Your task to perform on an android device: turn off translation in the chrome app Image 0: 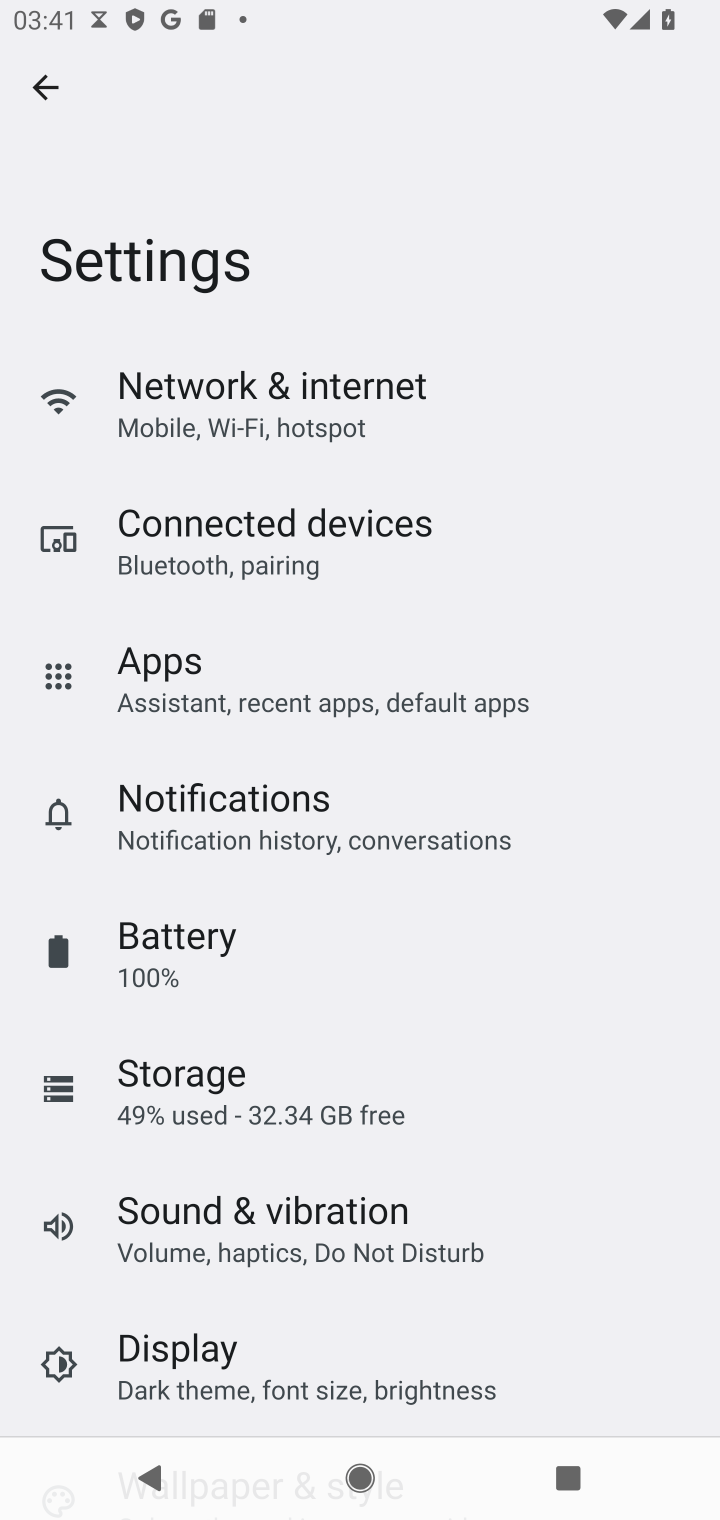
Step 0: press home button
Your task to perform on an android device: turn off translation in the chrome app Image 1: 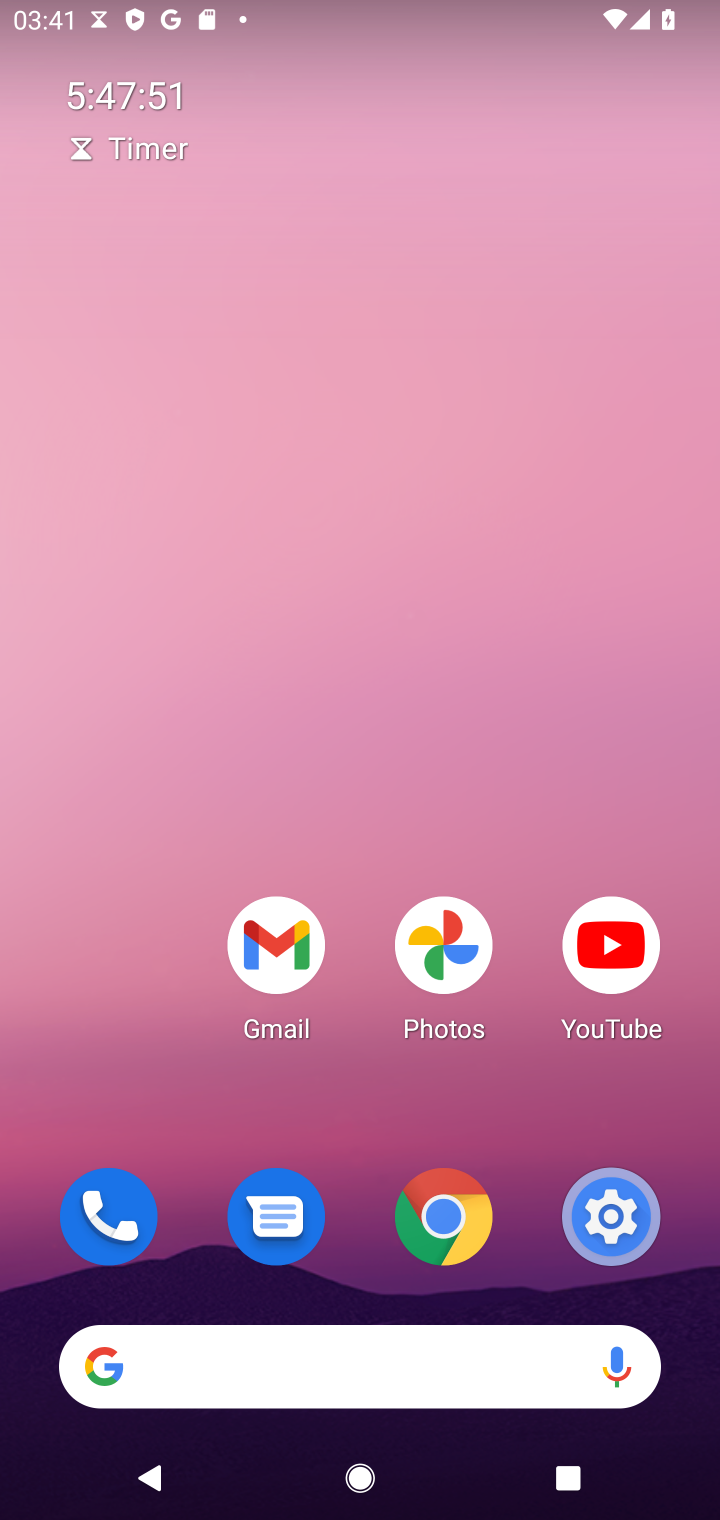
Step 1: click (435, 1200)
Your task to perform on an android device: turn off translation in the chrome app Image 2: 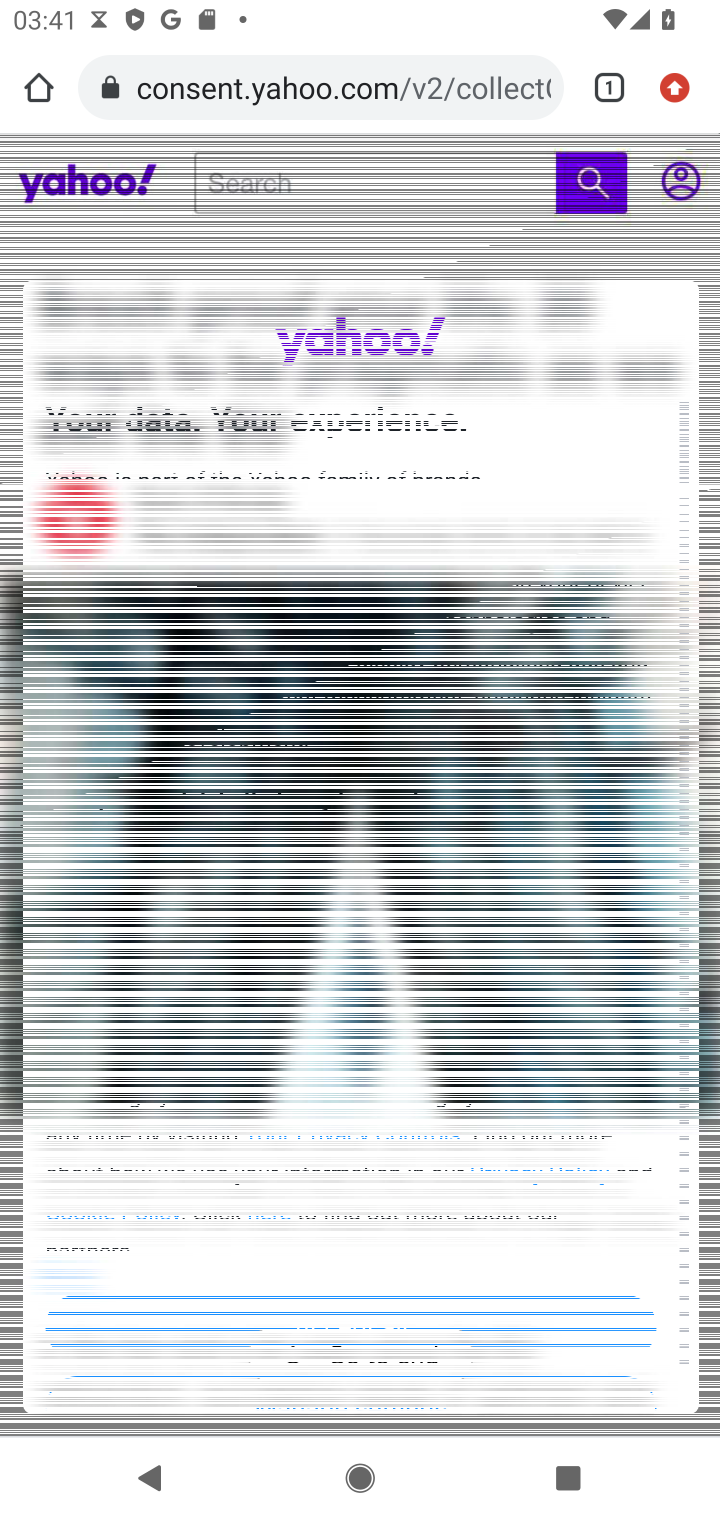
Step 2: click (674, 72)
Your task to perform on an android device: turn off translation in the chrome app Image 3: 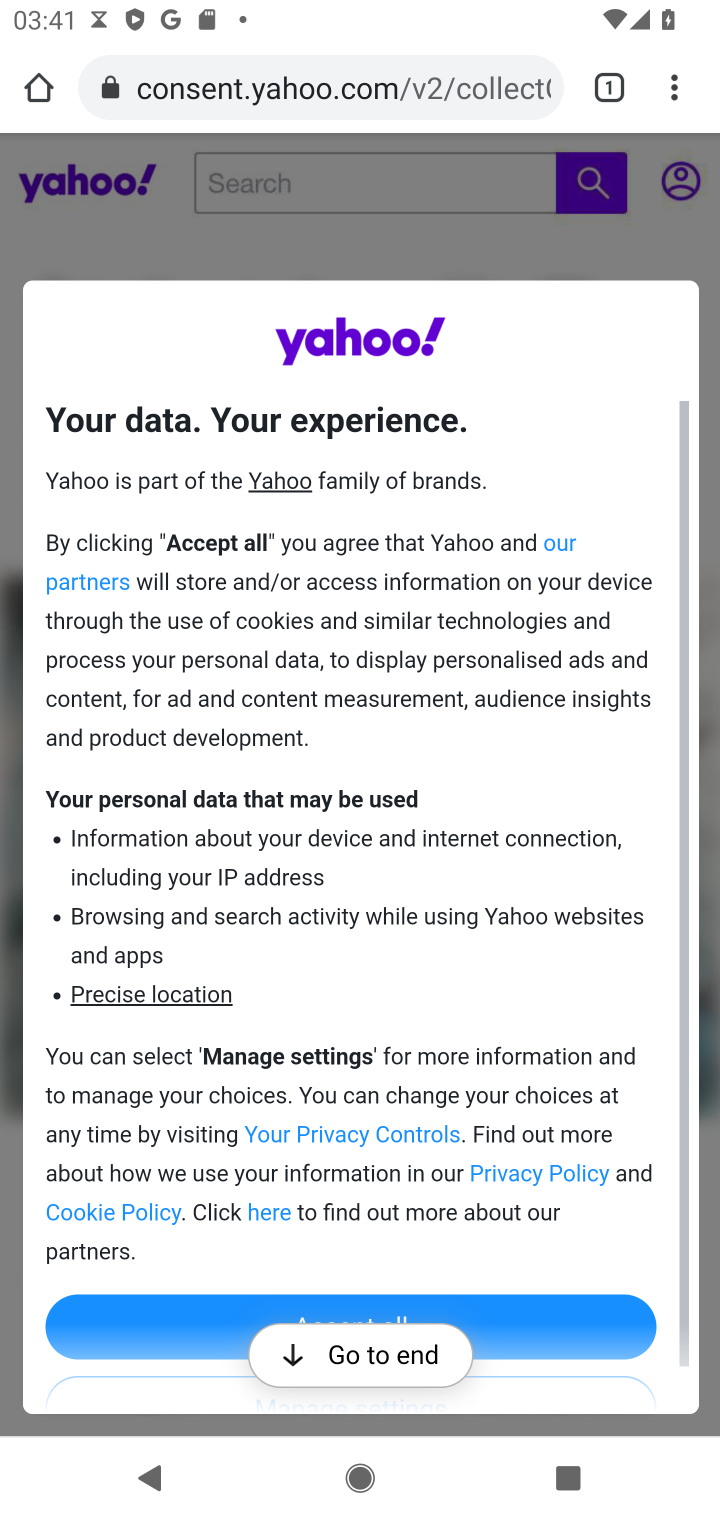
Step 3: click (674, 81)
Your task to perform on an android device: turn off translation in the chrome app Image 4: 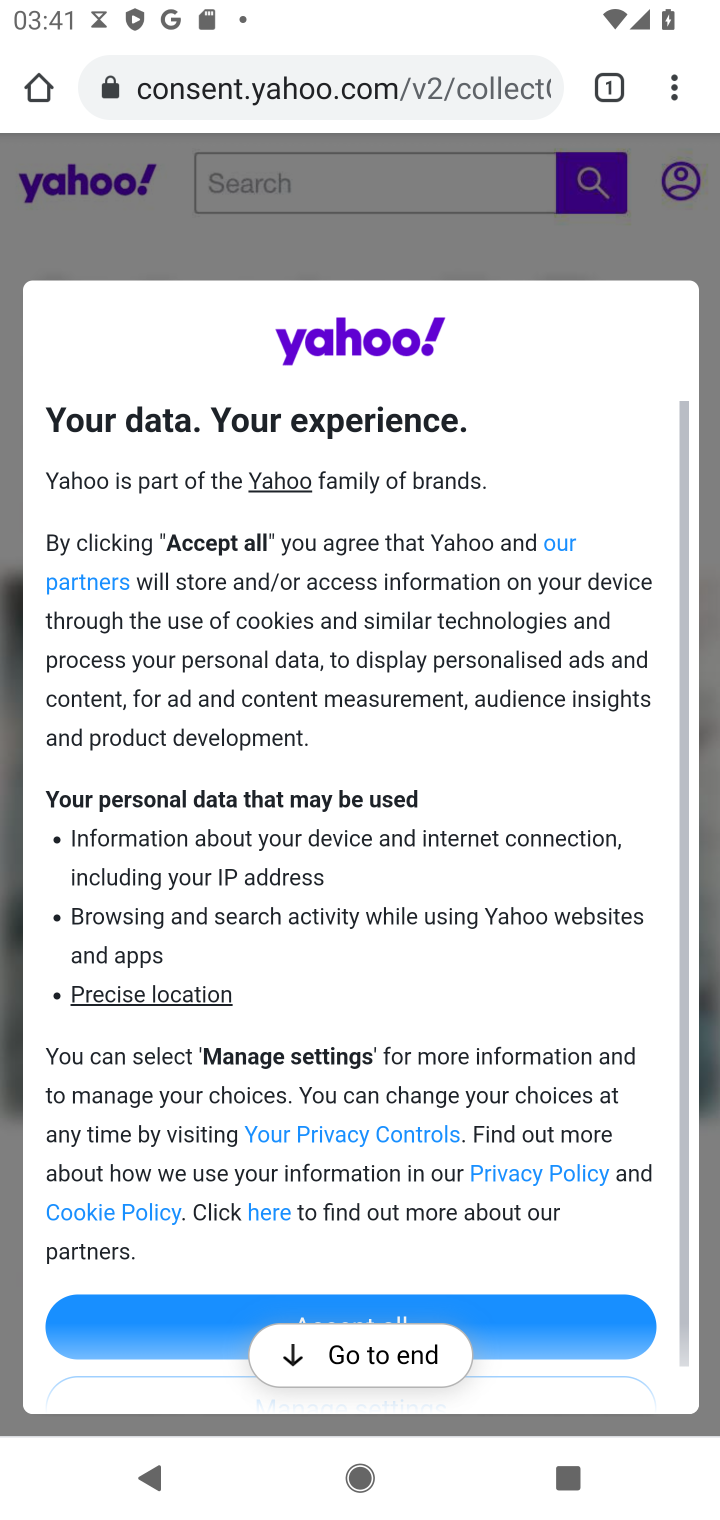
Step 4: click (674, 81)
Your task to perform on an android device: turn off translation in the chrome app Image 5: 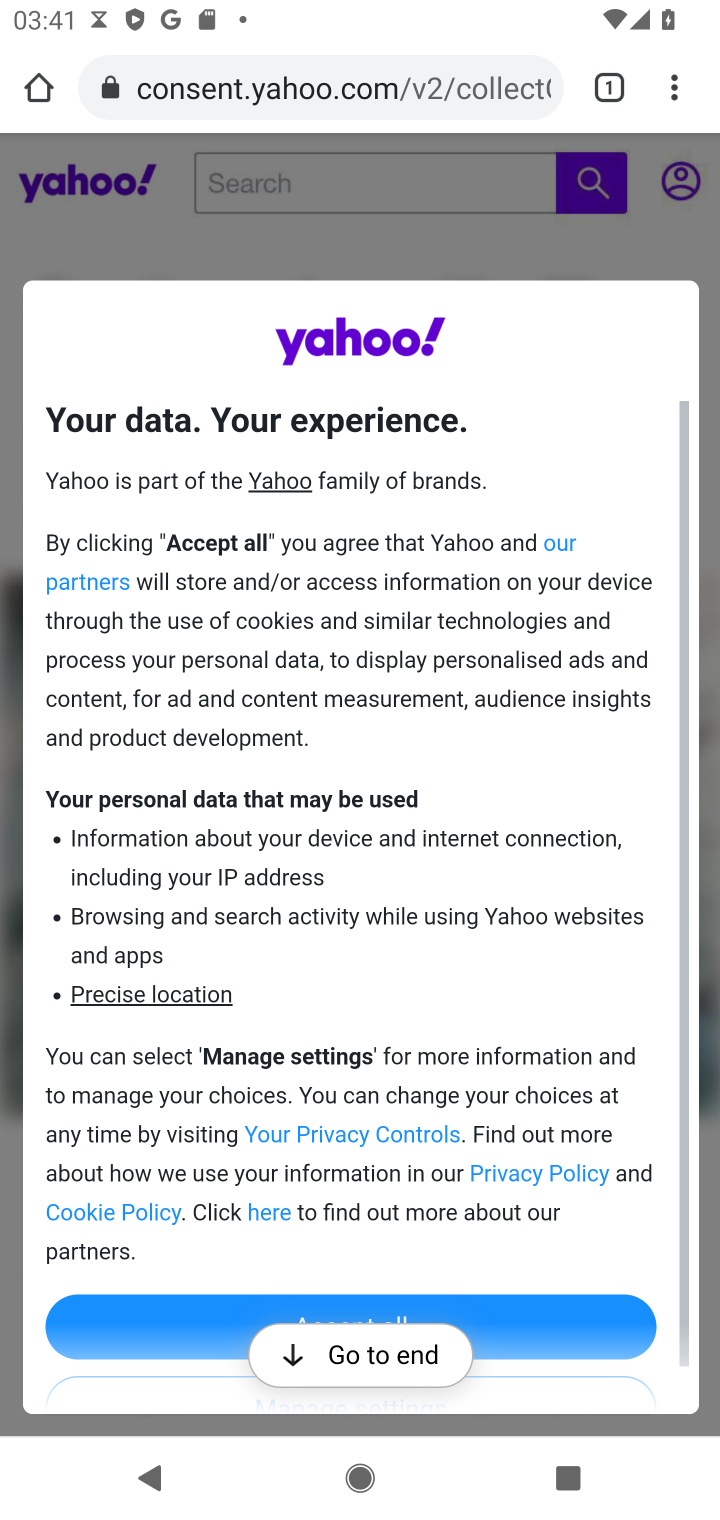
Step 5: click (674, 81)
Your task to perform on an android device: turn off translation in the chrome app Image 6: 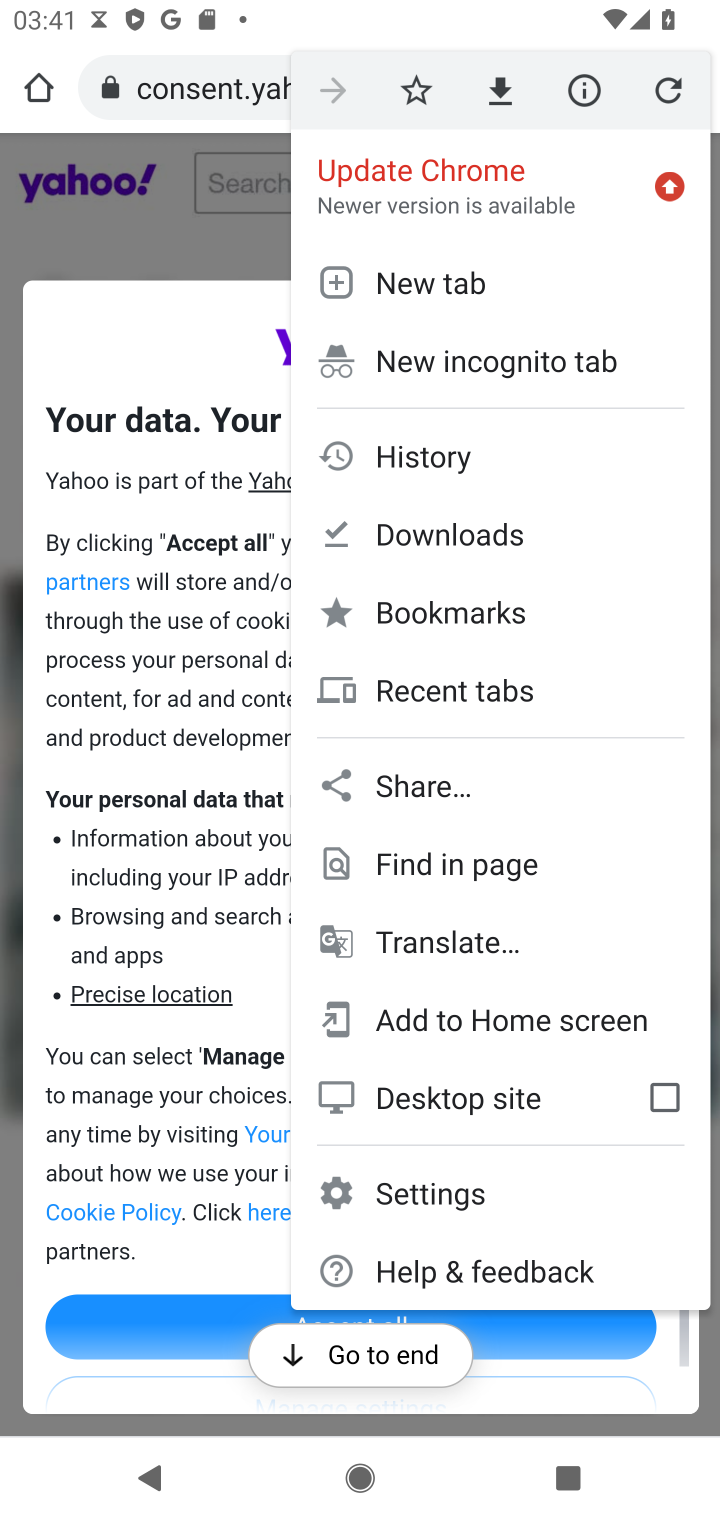
Step 6: click (400, 1165)
Your task to perform on an android device: turn off translation in the chrome app Image 7: 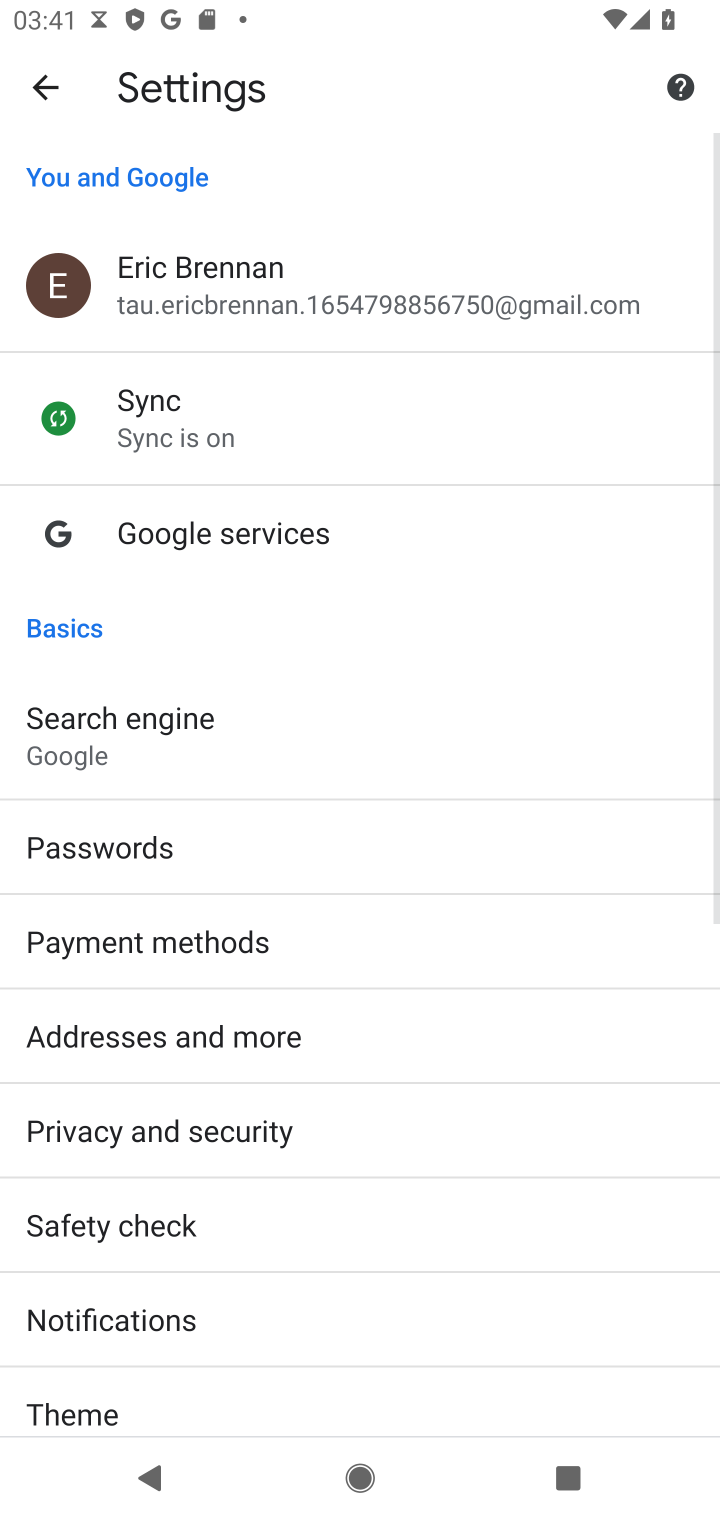
Step 7: drag from (291, 1280) to (298, 912)
Your task to perform on an android device: turn off translation in the chrome app Image 8: 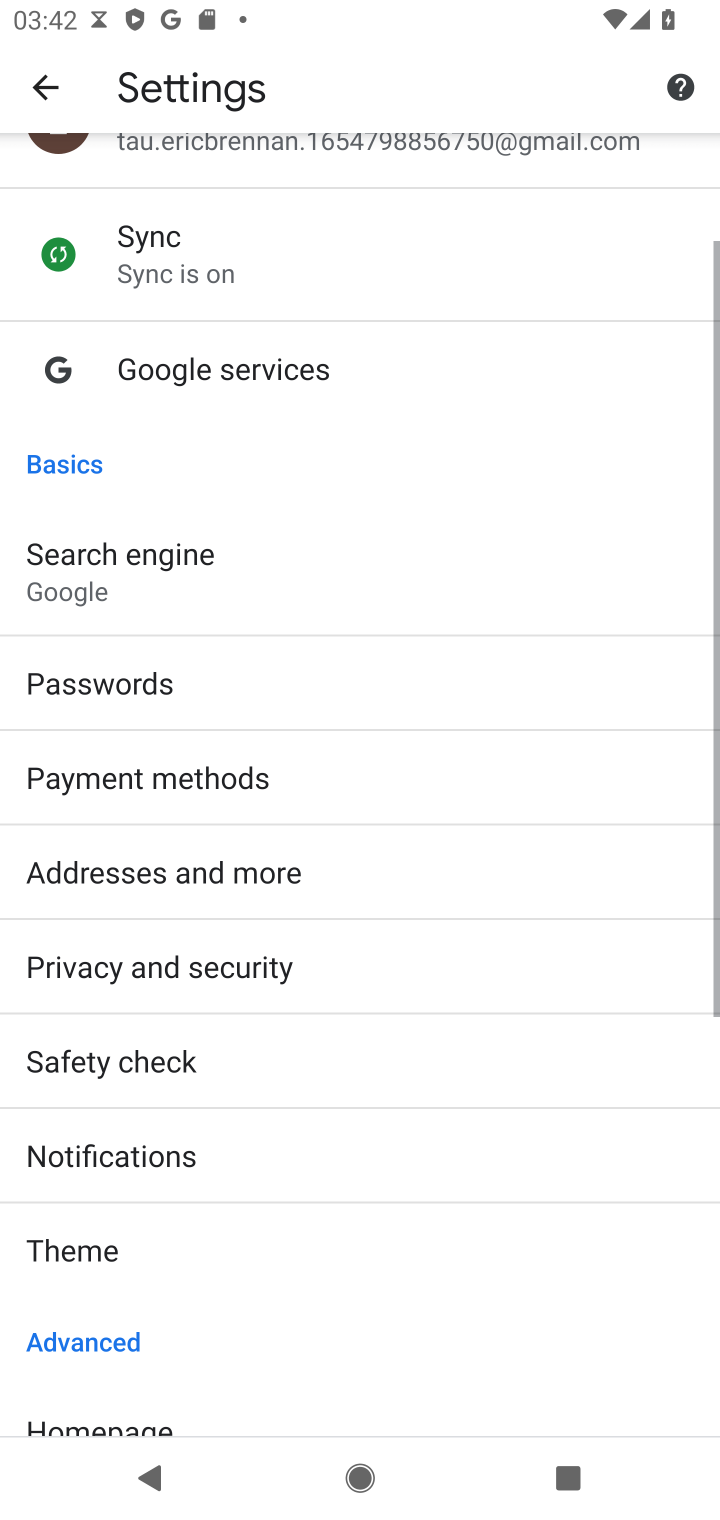
Step 8: drag from (322, 1272) to (318, 681)
Your task to perform on an android device: turn off translation in the chrome app Image 9: 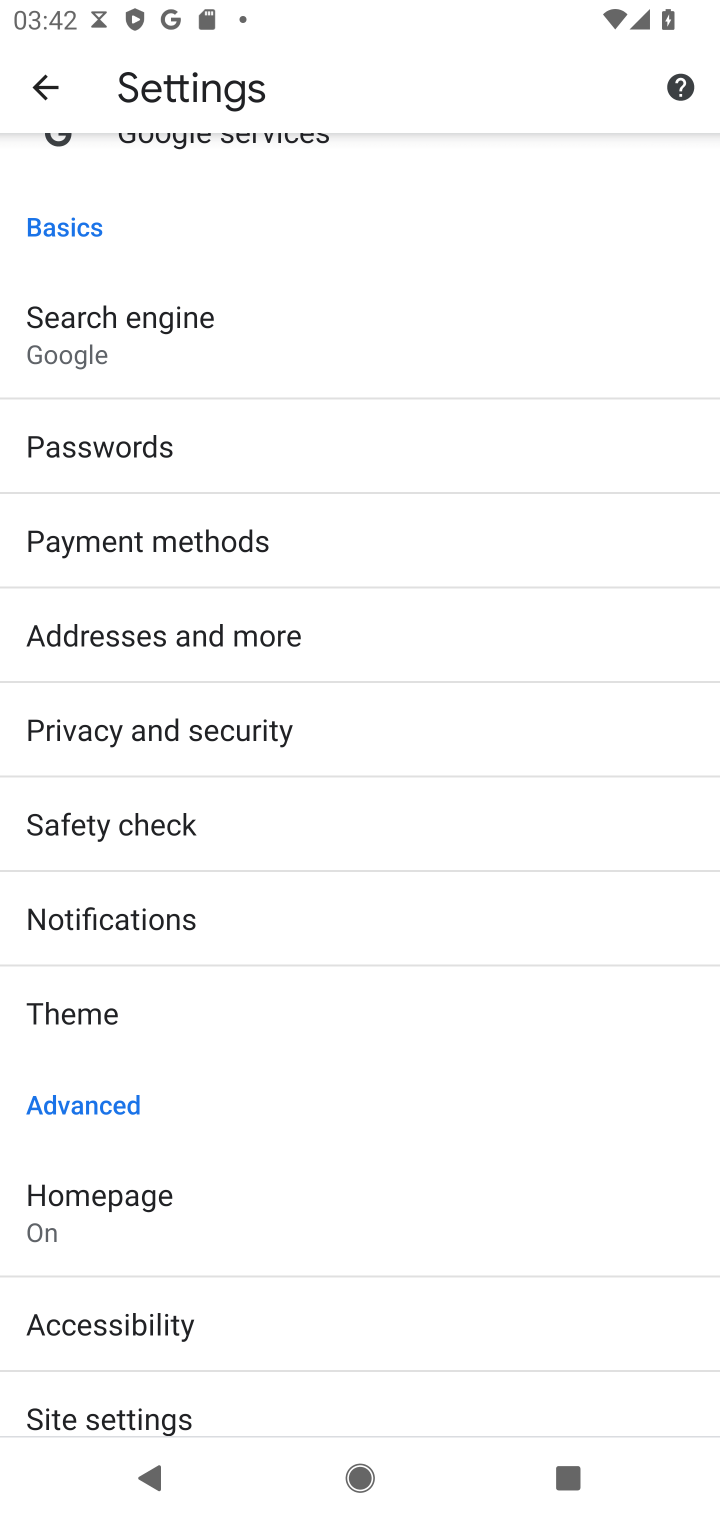
Step 9: drag from (265, 1344) to (236, 581)
Your task to perform on an android device: turn off translation in the chrome app Image 10: 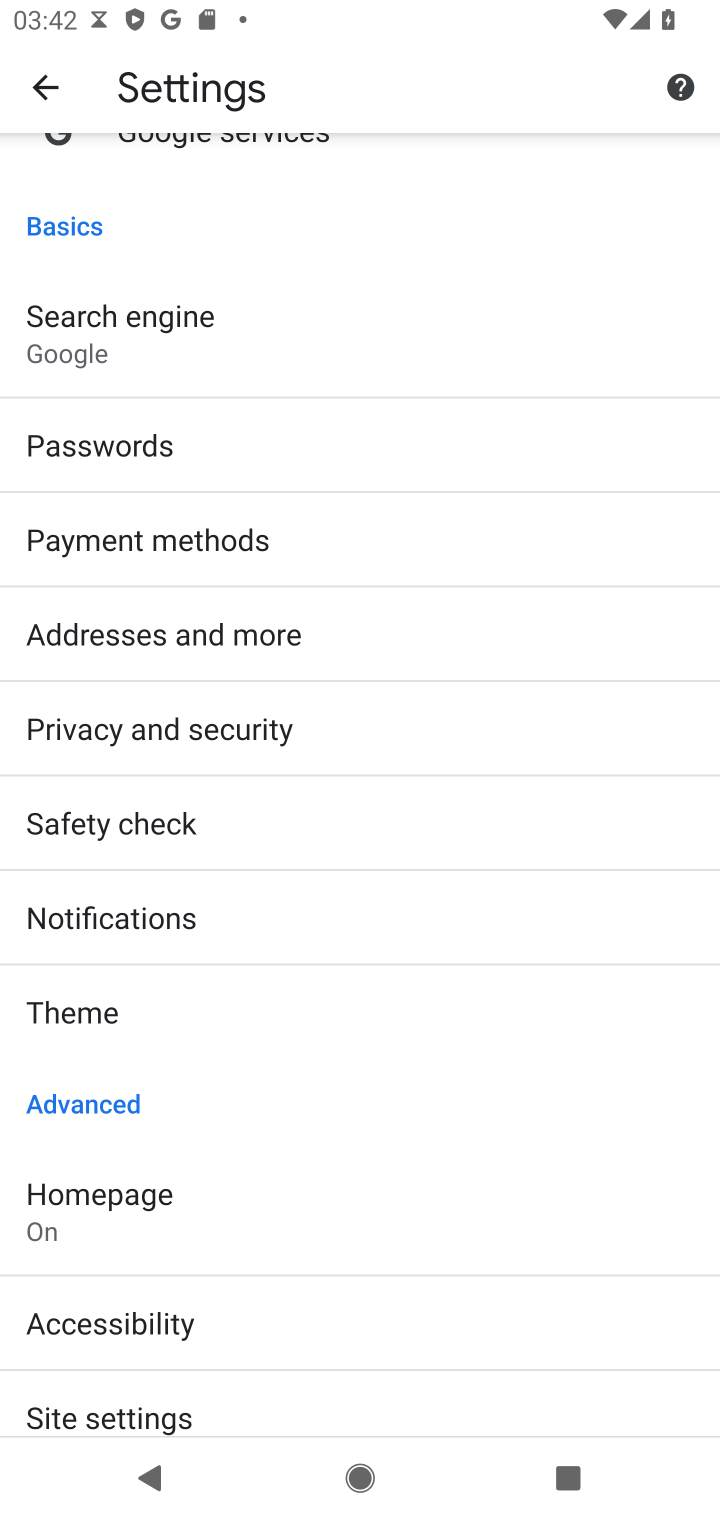
Step 10: drag from (195, 1086) to (167, 660)
Your task to perform on an android device: turn off translation in the chrome app Image 11: 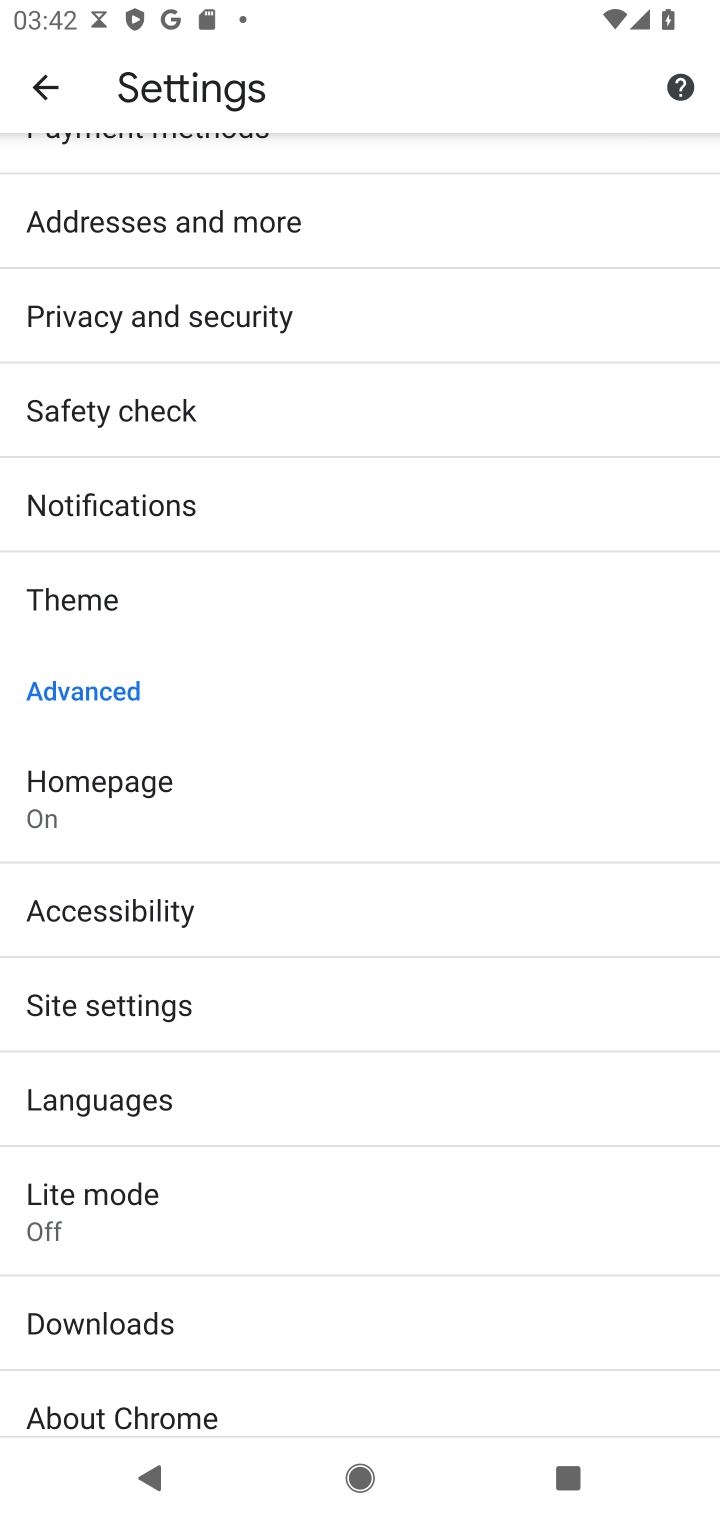
Step 11: click (226, 1089)
Your task to perform on an android device: turn off translation in the chrome app Image 12: 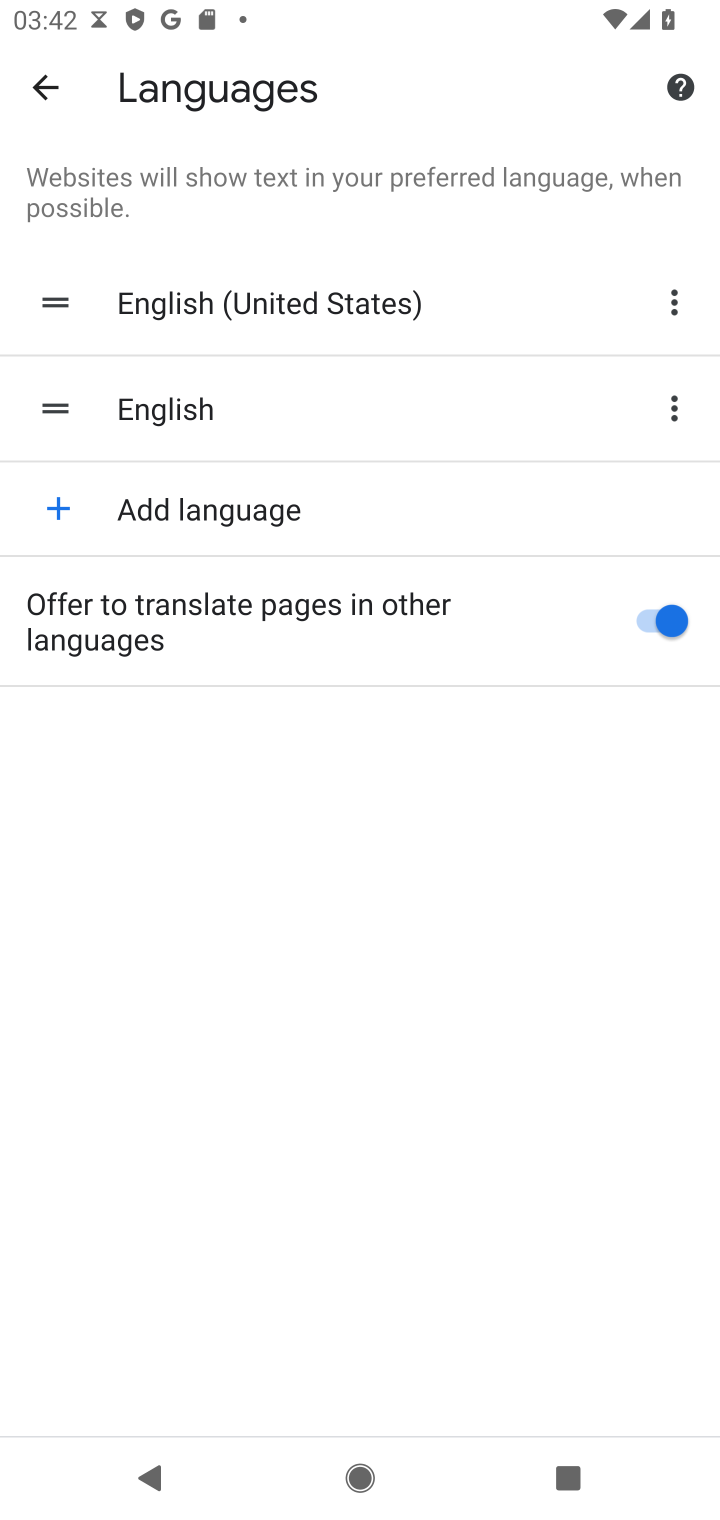
Step 12: click (663, 621)
Your task to perform on an android device: turn off translation in the chrome app Image 13: 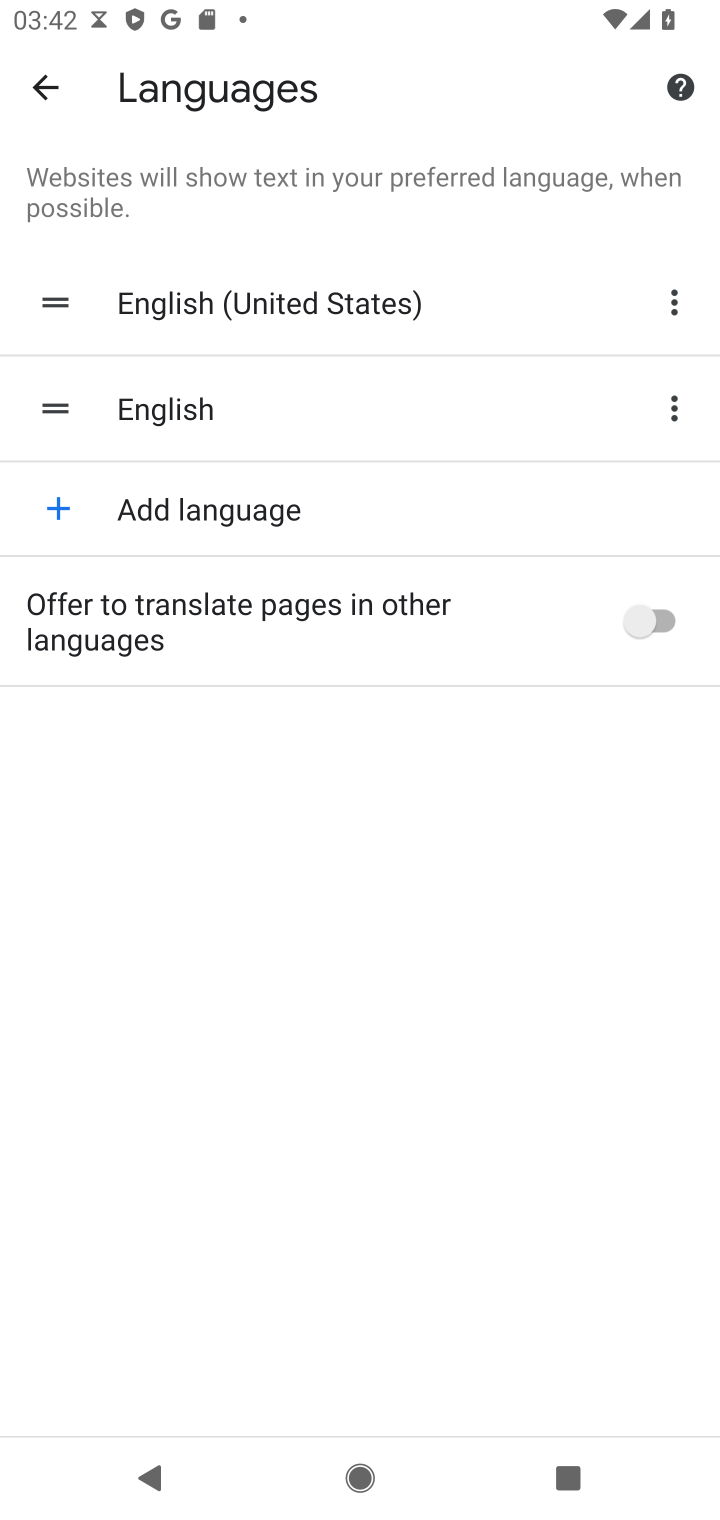
Step 13: task complete